Your task to perform on an android device: Go to network settings Image 0: 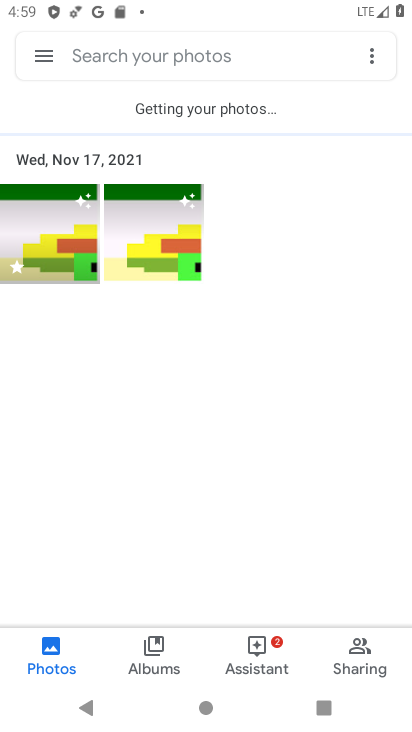
Step 0: press home button
Your task to perform on an android device: Go to network settings Image 1: 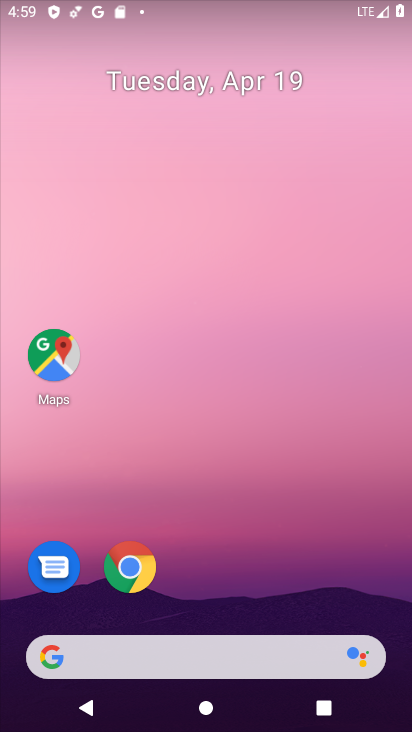
Step 1: drag from (246, 493) to (207, 17)
Your task to perform on an android device: Go to network settings Image 2: 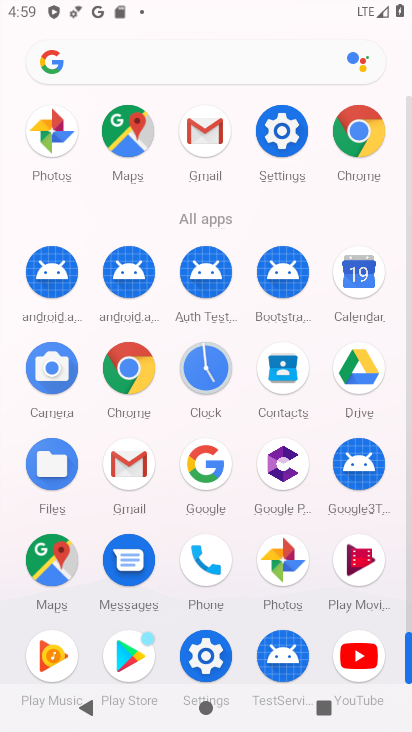
Step 2: click (199, 652)
Your task to perform on an android device: Go to network settings Image 3: 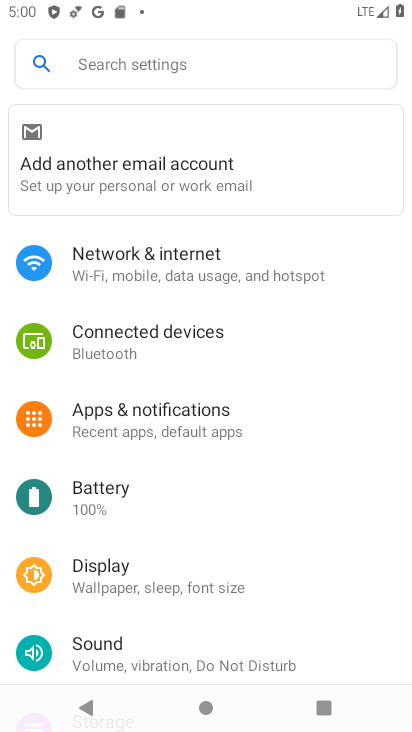
Step 3: drag from (137, 650) to (164, 608)
Your task to perform on an android device: Go to network settings Image 4: 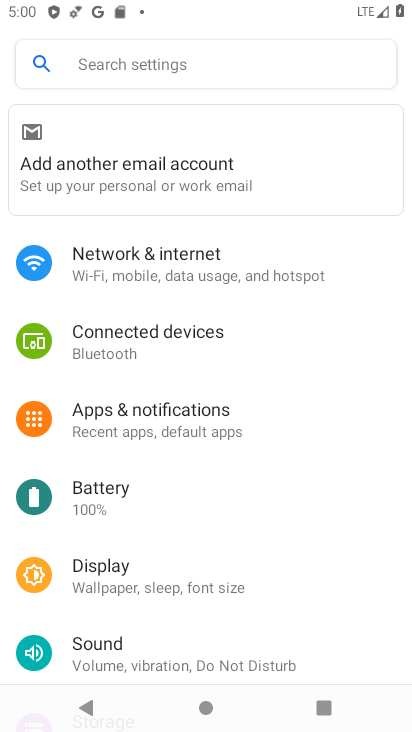
Step 4: click (166, 276)
Your task to perform on an android device: Go to network settings Image 5: 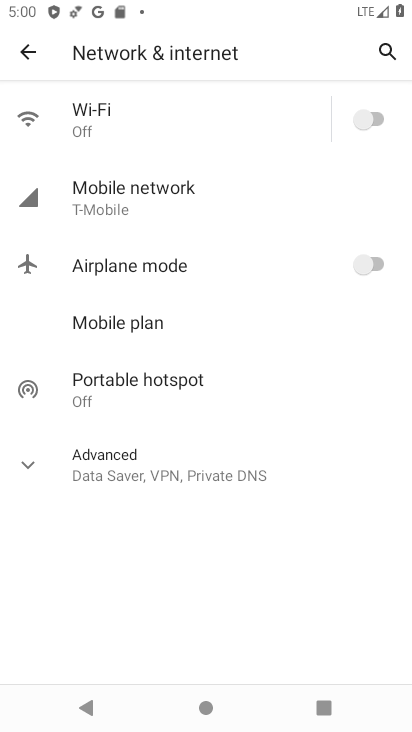
Step 5: click (158, 210)
Your task to perform on an android device: Go to network settings Image 6: 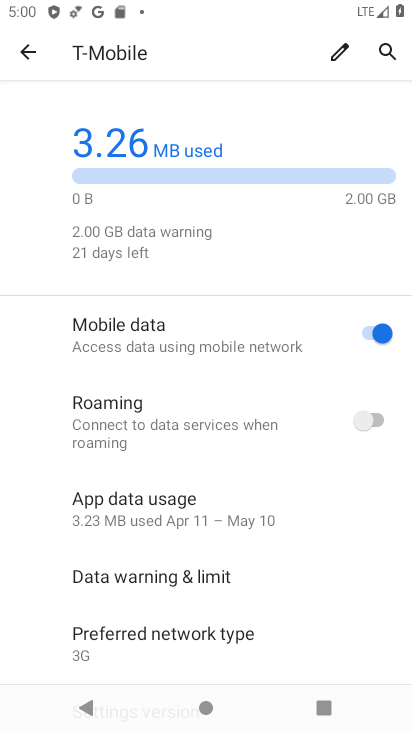
Step 6: task complete